Your task to perform on an android device: install app "Mercado Libre" Image 0: 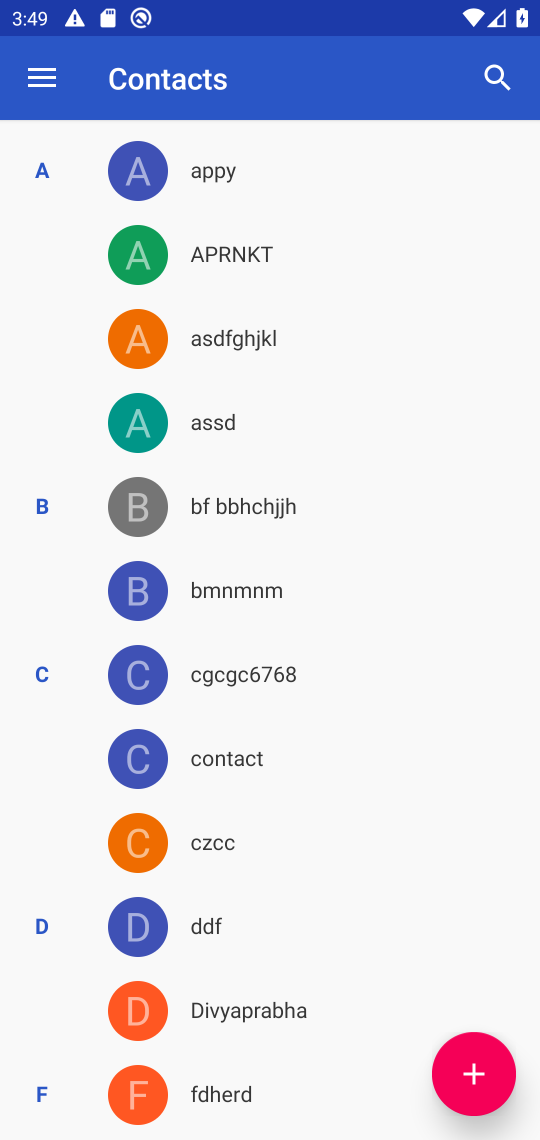
Step 0: press back button
Your task to perform on an android device: install app "Mercado Libre" Image 1: 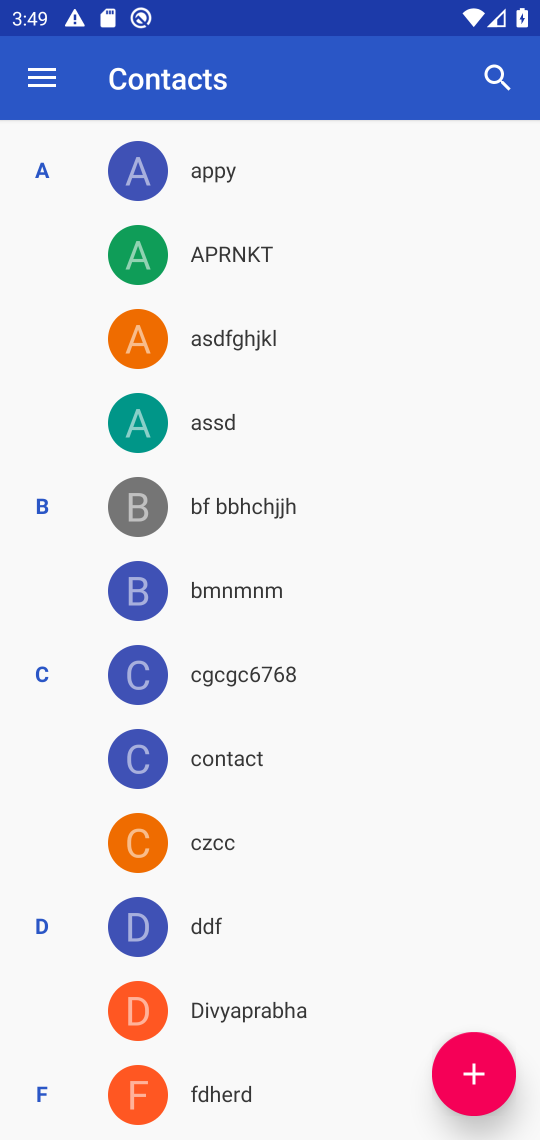
Step 1: press back button
Your task to perform on an android device: install app "Mercado Libre" Image 2: 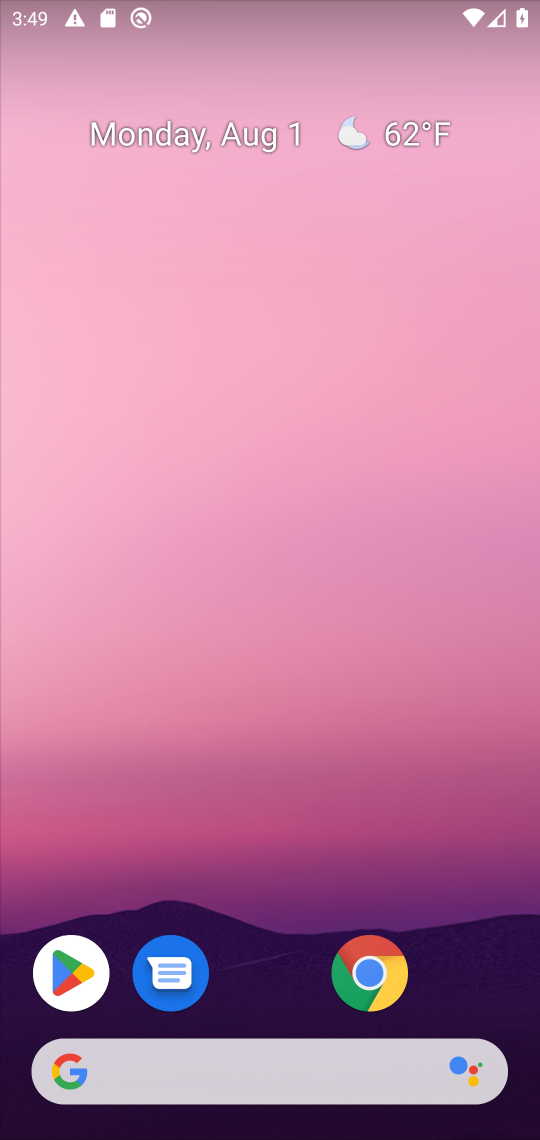
Step 2: drag from (288, 1065) to (300, 430)
Your task to perform on an android device: install app "Mercado Libre" Image 3: 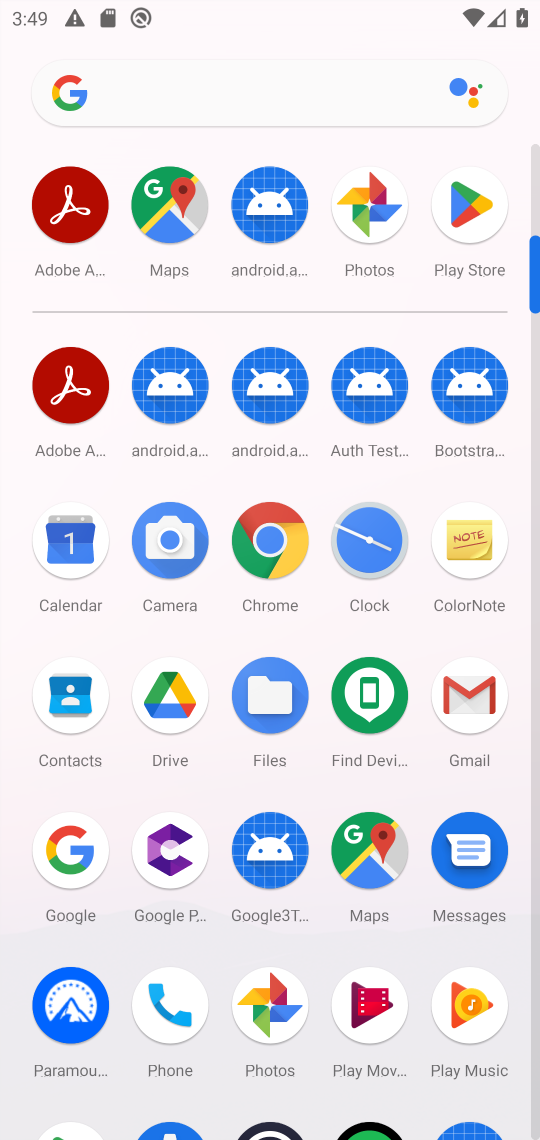
Step 3: click (464, 203)
Your task to perform on an android device: install app "Mercado Libre" Image 4: 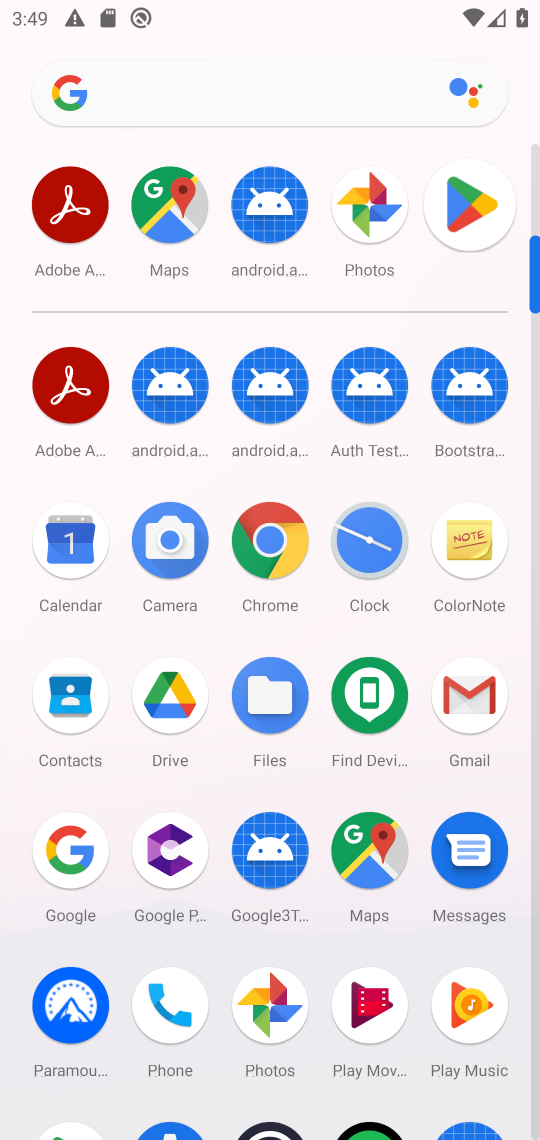
Step 4: click (468, 206)
Your task to perform on an android device: install app "Mercado Libre" Image 5: 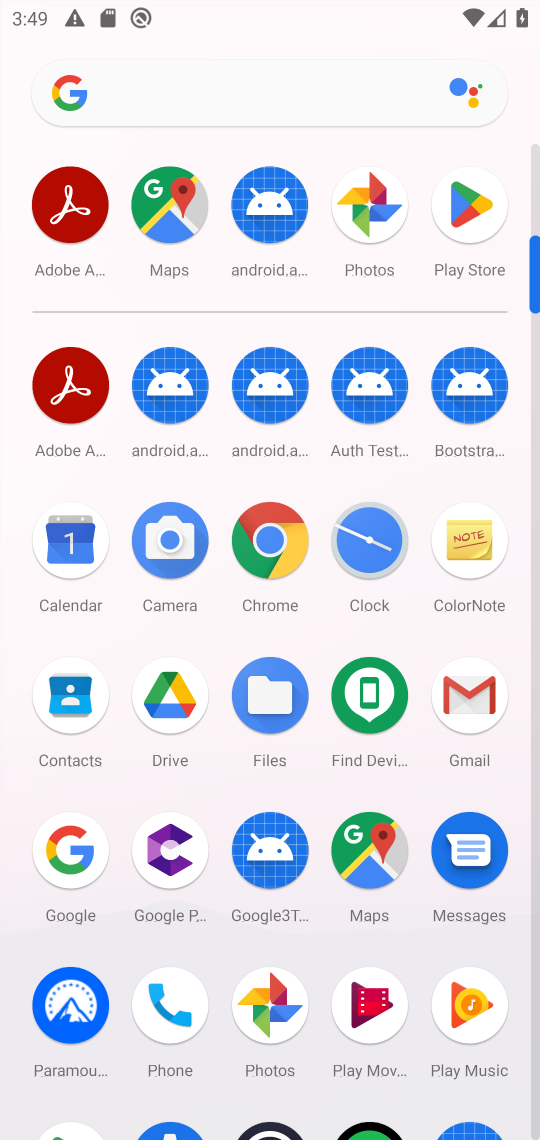
Step 5: click (458, 207)
Your task to perform on an android device: install app "Mercado Libre" Image 6: 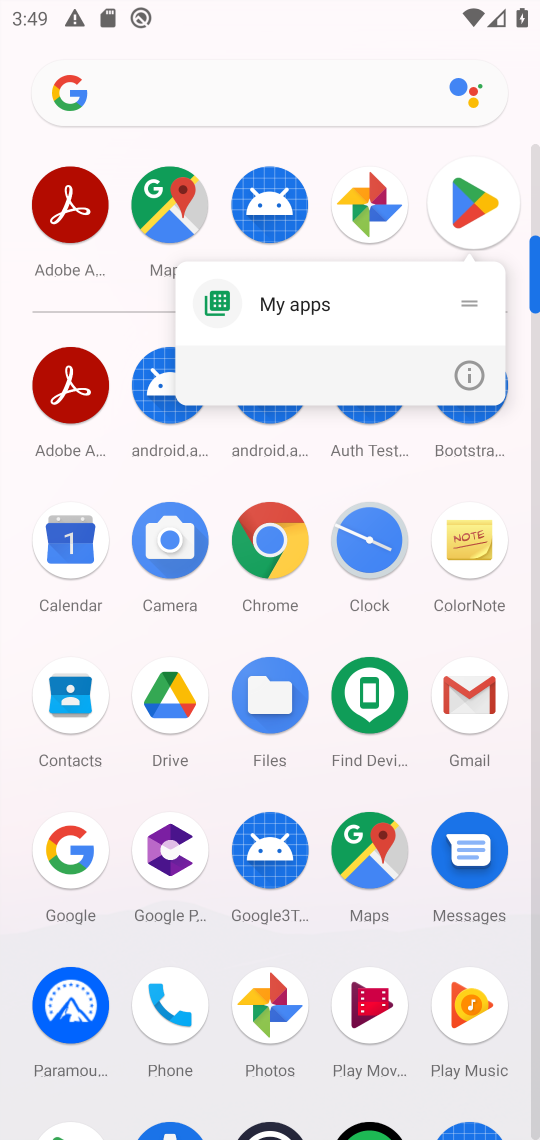
Step 6: click (472, 187)
Your task to perform on an android device: install app "Mercado Libre" Image 7: 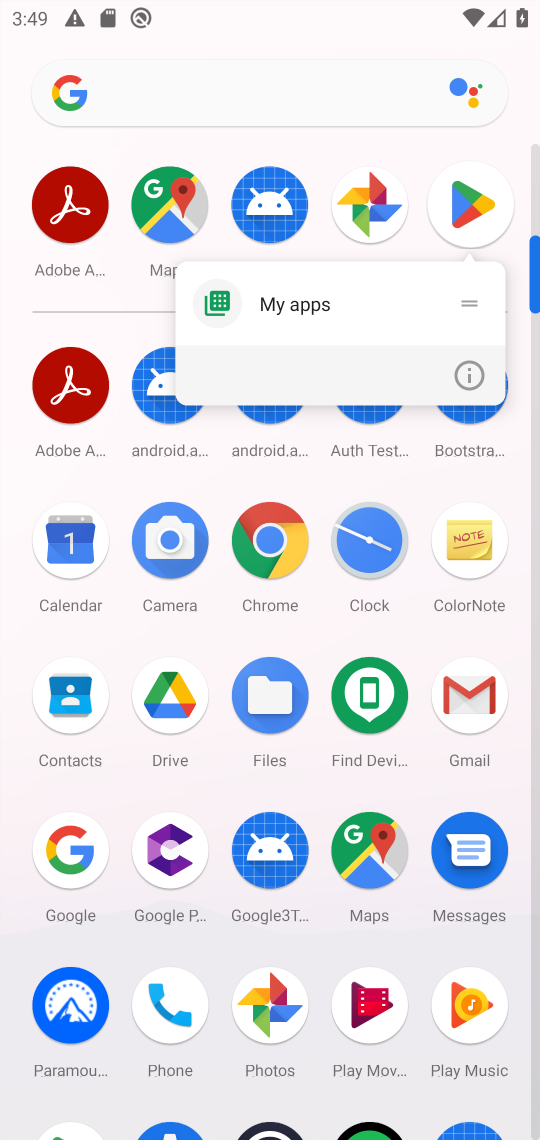
Step 7: click (472, 187)
Your task to perform on an android device: install app "Mercado Libre" Image 8: 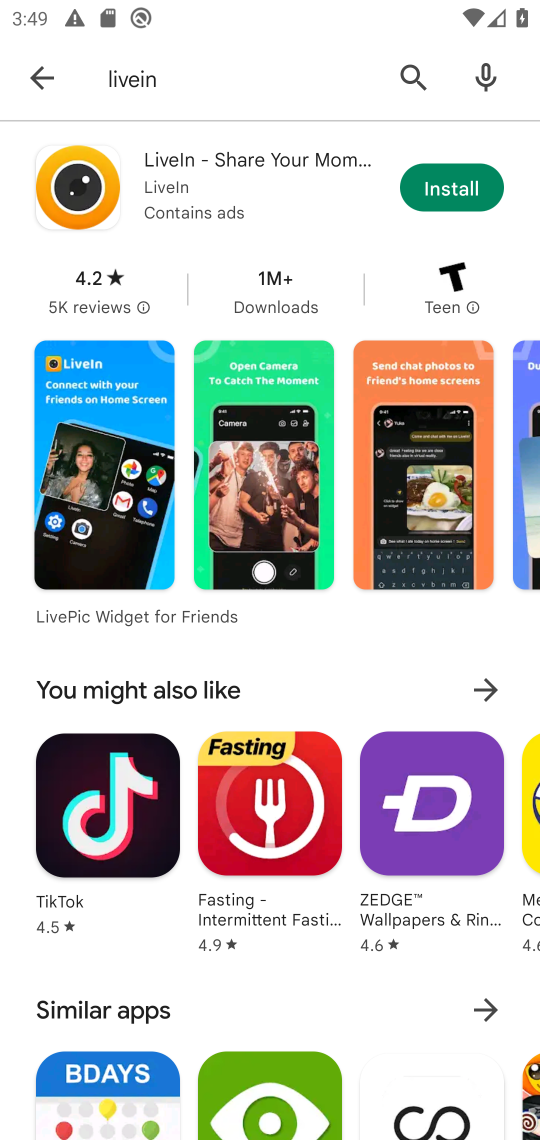
Step 8: click (102, 65)
Your task to perform on an android device: install app "Mercado Libre" Image 9: 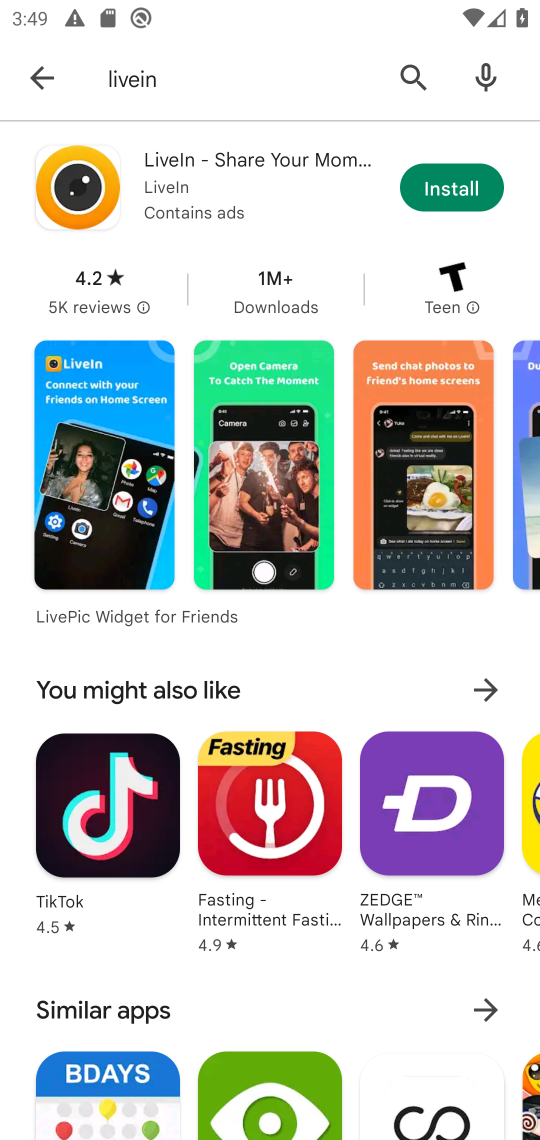
Step 9: click (38, 86)
Your task to perform on an android device: install app "Mercado Libre" Image 10: 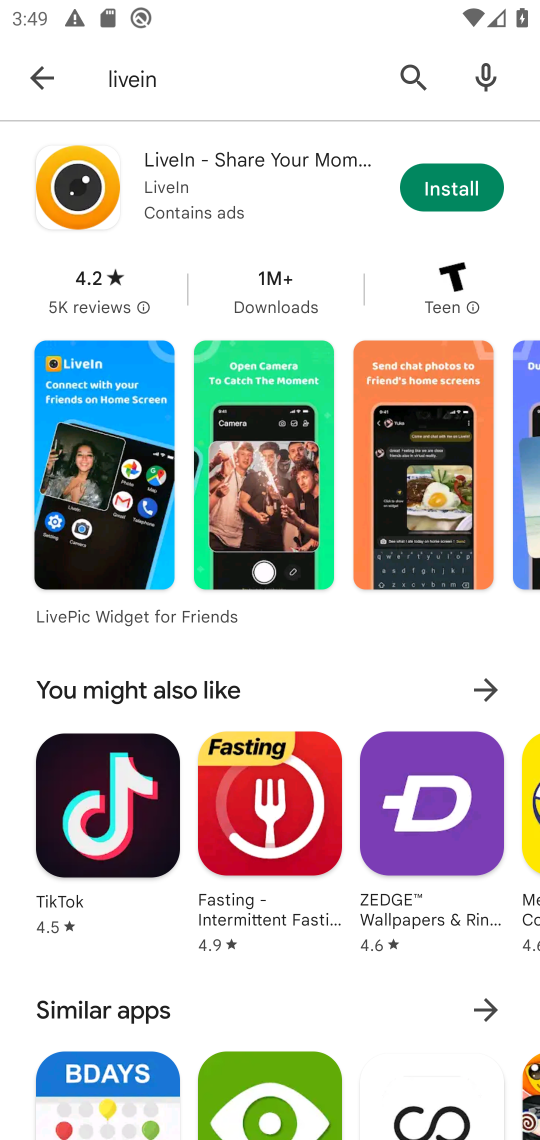
Step 10: click (42, 69)
Your task to perform on an android device: install app "Mercado Libre" Image 11: 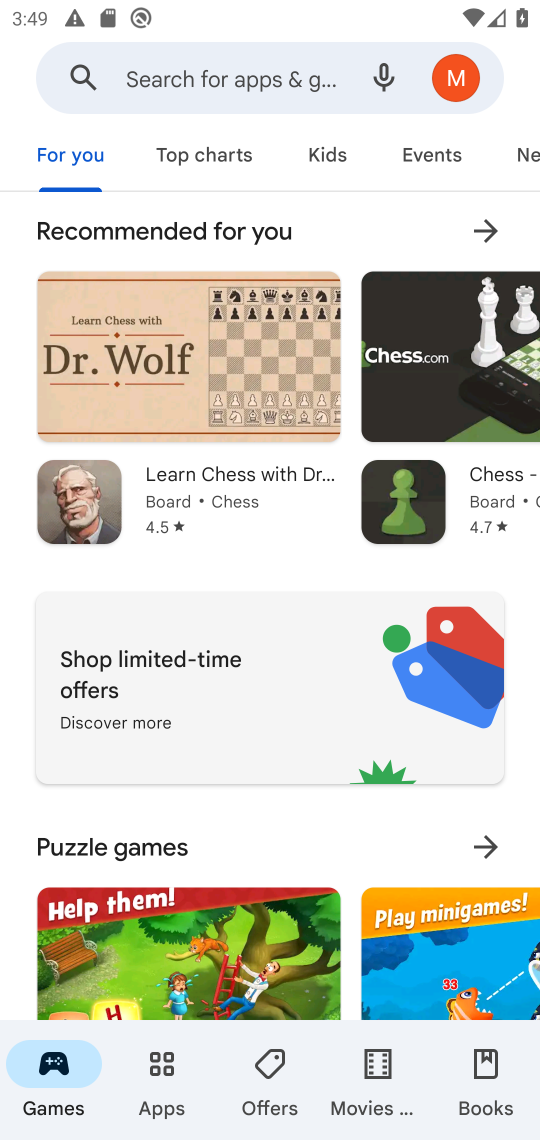
Step 11: click (127, 69)
Your task to perform on an android device: install app "Mercado Libre" Image 12: 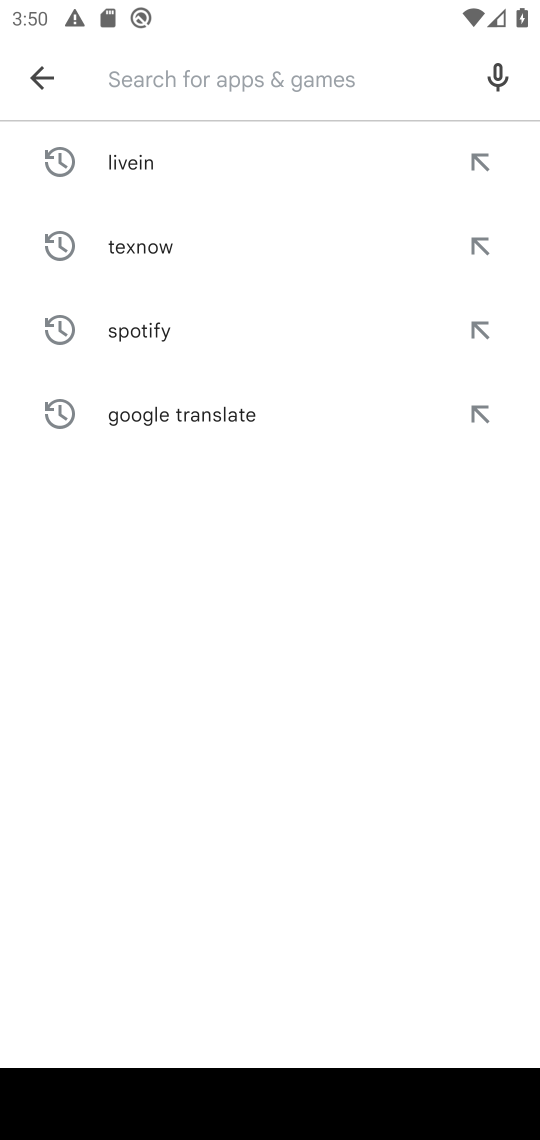
Step 12: type "Mercado Libre"
Your task to perform on an android device: install app "Mercado Libre" Image 13: 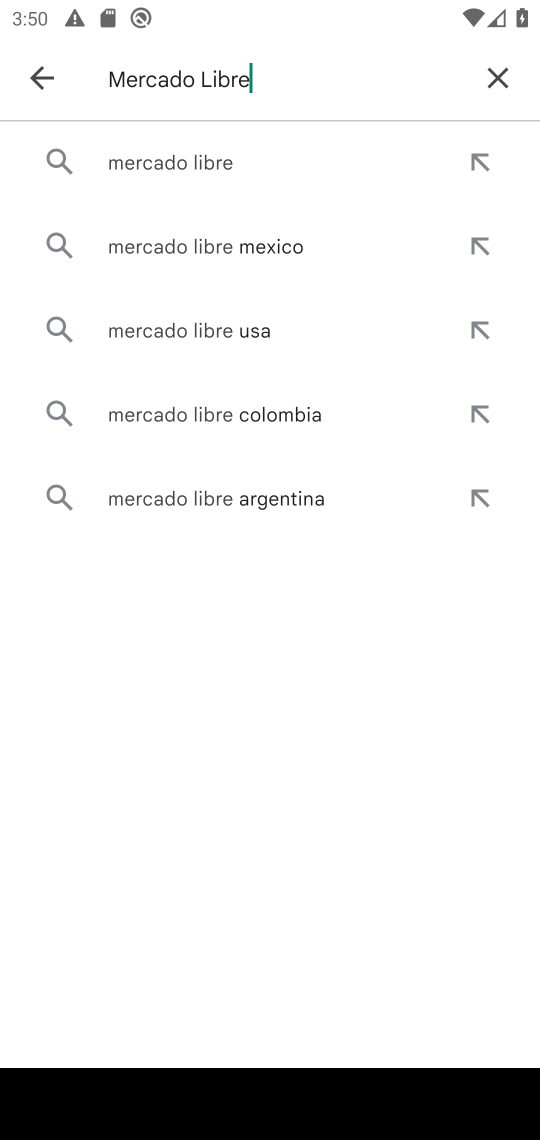
Step 13: click (165, 164)
Your task to perform on an android device: install app "Mercado Libre" Image 14: 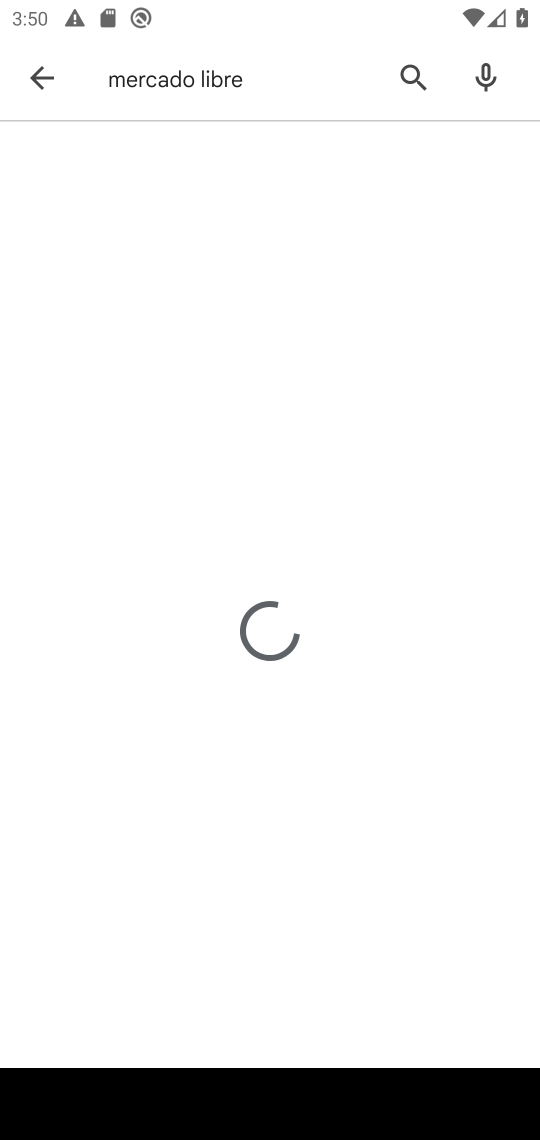
Step 14: click (164, 162)
Your task to perform on an android device: install app "Mercado Libre" Image 15: 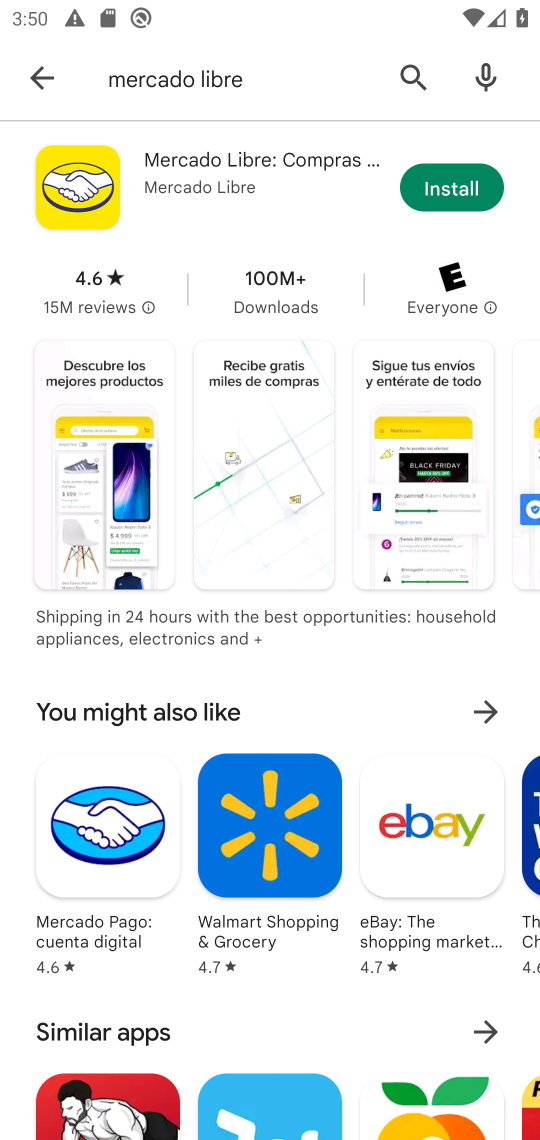
Step 15: click (437, 178)
Your task to perform on an android device: install app "Mercado Libre" Image 16: 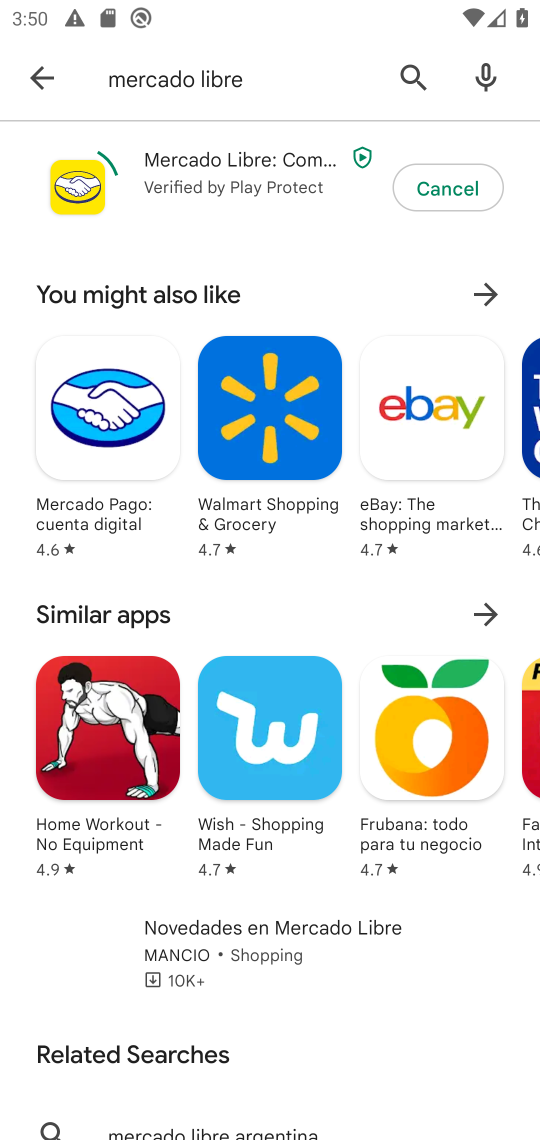
Step 16: click (439, 177)
Your task to perform on an android device: install app "Mercado Libre" Image 17: 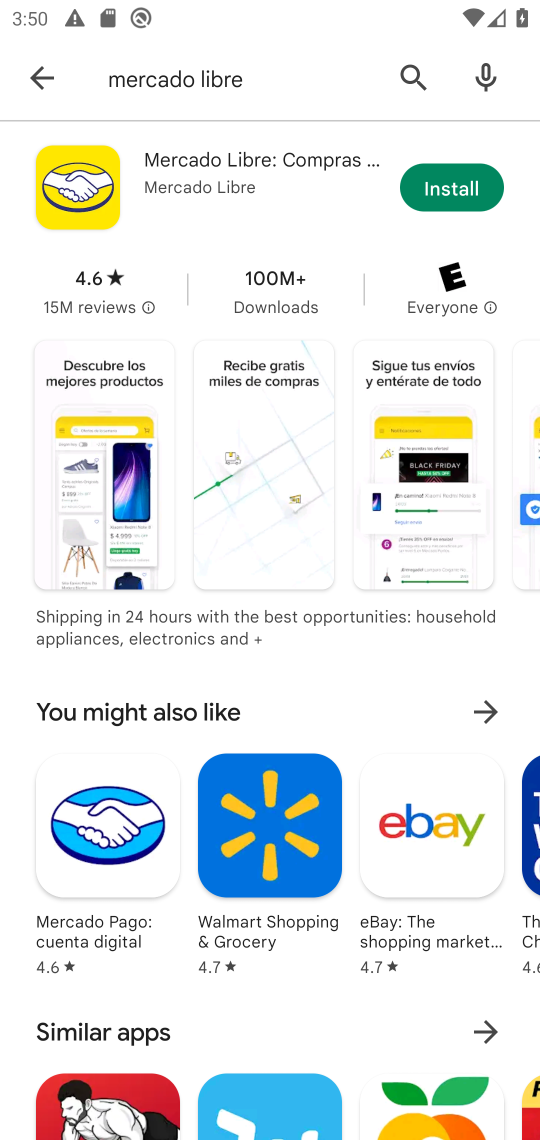
Step 17: click (454, 193)
Your task to perform on an android device: install app "Mercado Libre" Image 18: 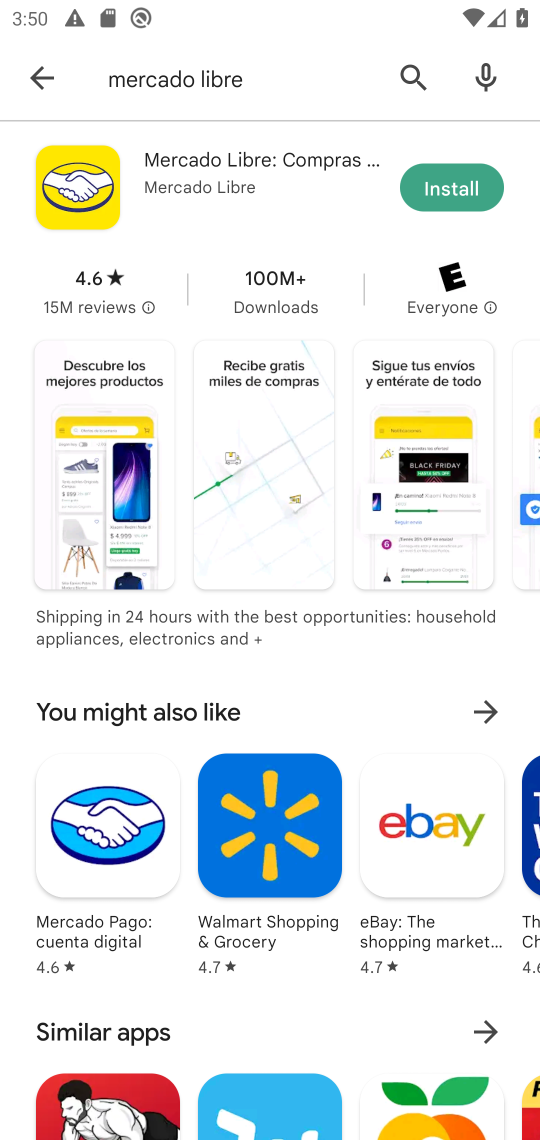
Step 18: click (454, 187)
Your task to perform on an android device: install app "Mercado Libre" Image 19: 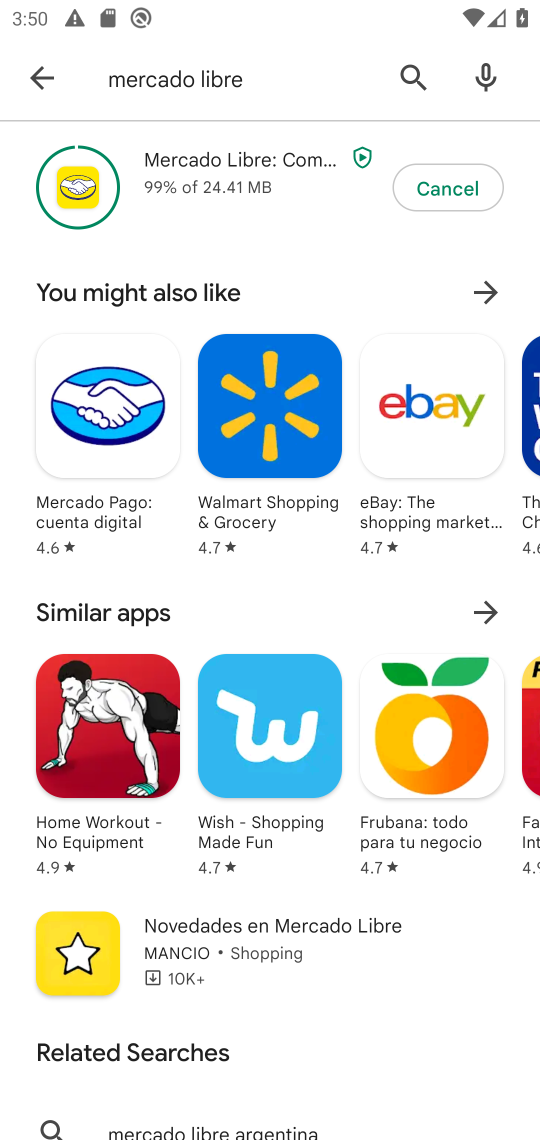
Step 19: click (444, 184)
Your task to perform on an android device: install app "Mercado Libre" Image 20: 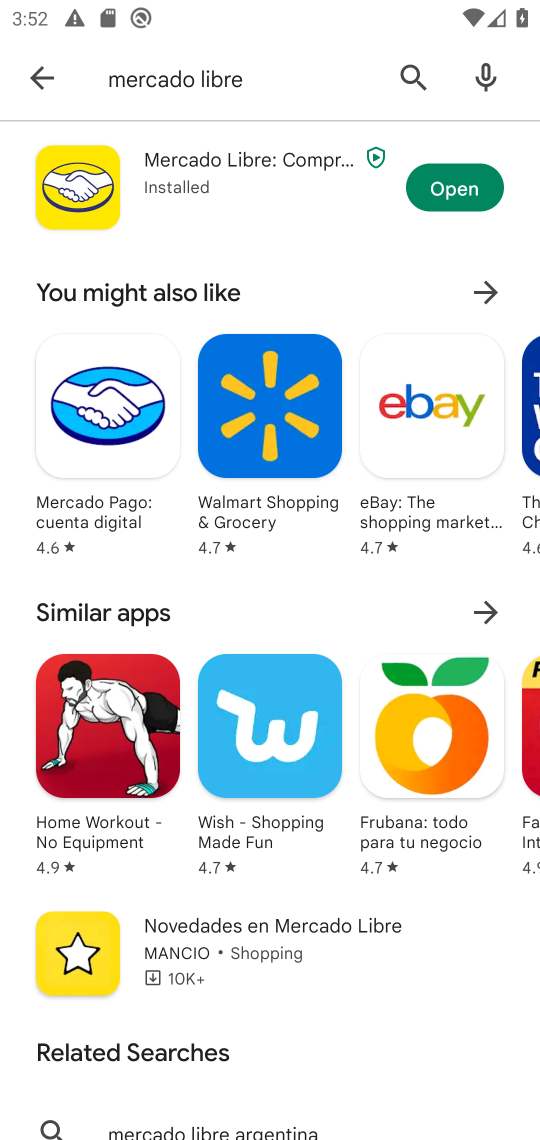
Step 20: click (451, 195)
Your task to perform on an android device: install app "Mercado Libre" Image 21: 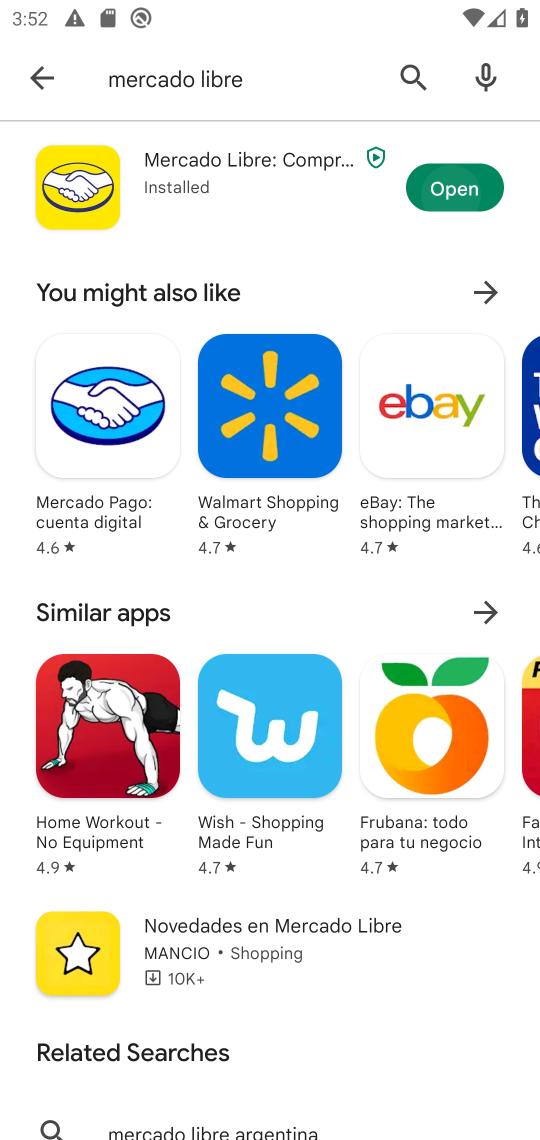
Step 21: click (457, 188)
Your task to perform on an android device: install app "Mercado Libre" Image 22: 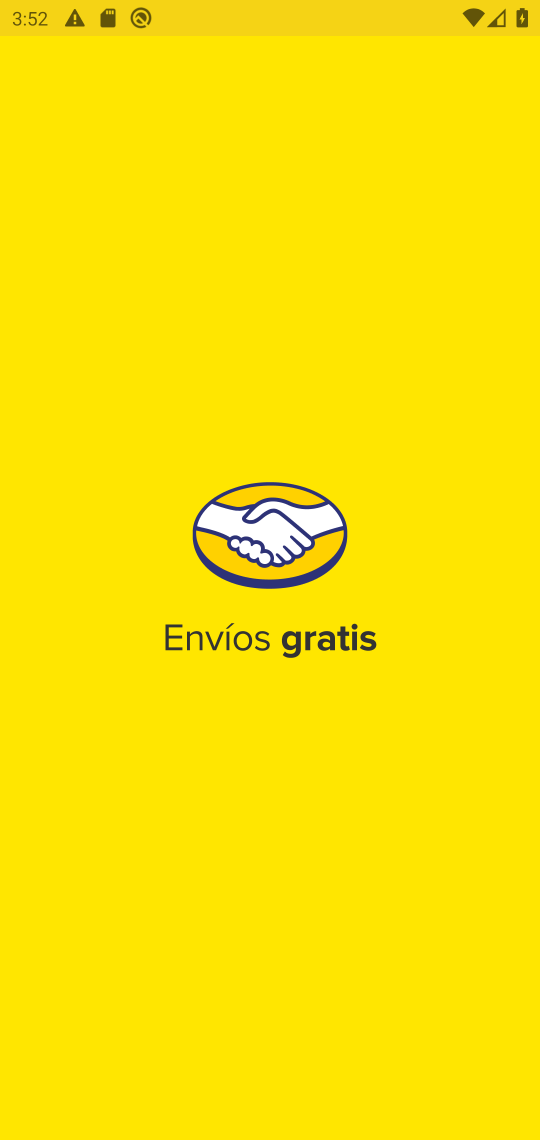
Step 22: click (458, 193)
Your task to perform on an android device: install app "Mercado Libre" Image 23: 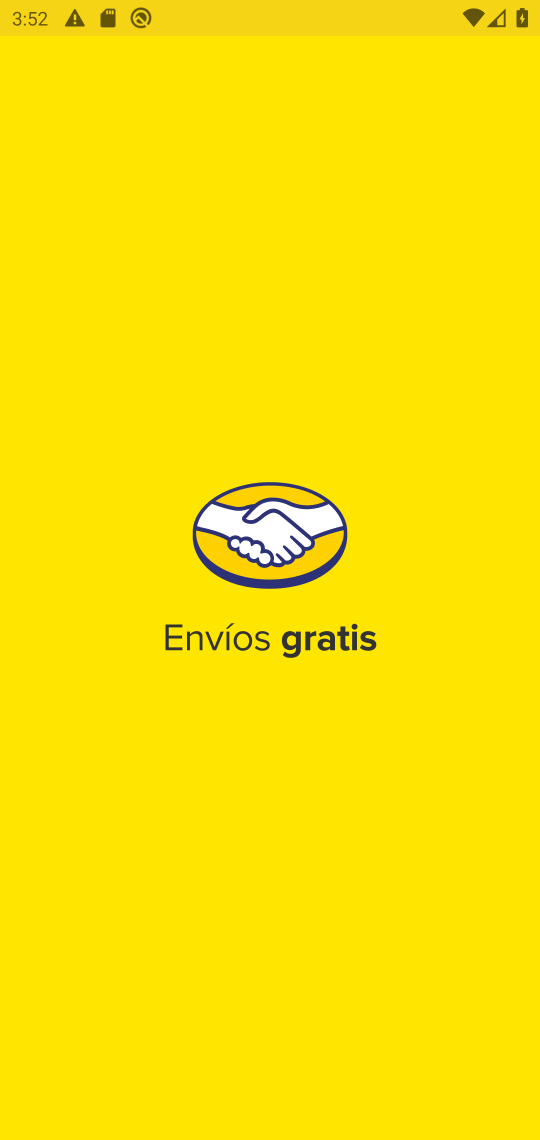
Step 23: task complete